Your task to perform on an android device: Show me recent news Image 0: 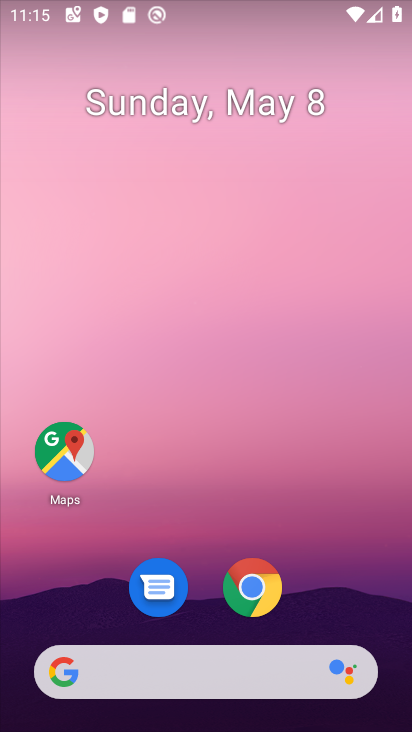
Step 0: click (122, 11)
Your task to perform on an android device: Show me recent news Image 1: 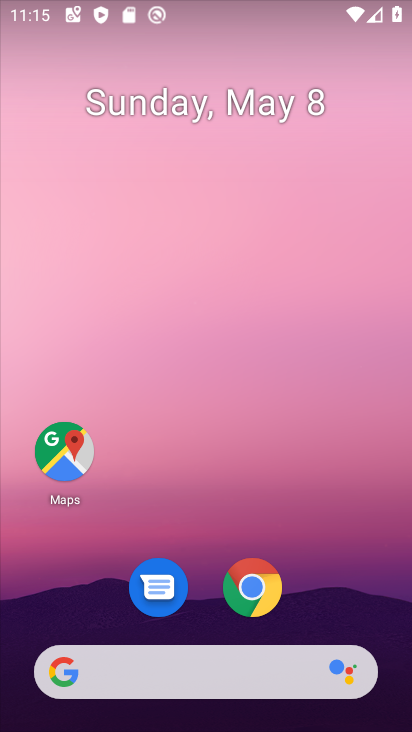
Step 1: task complete